Your task to perform on an android device: manage bookmarks in the chrome app Image 0: 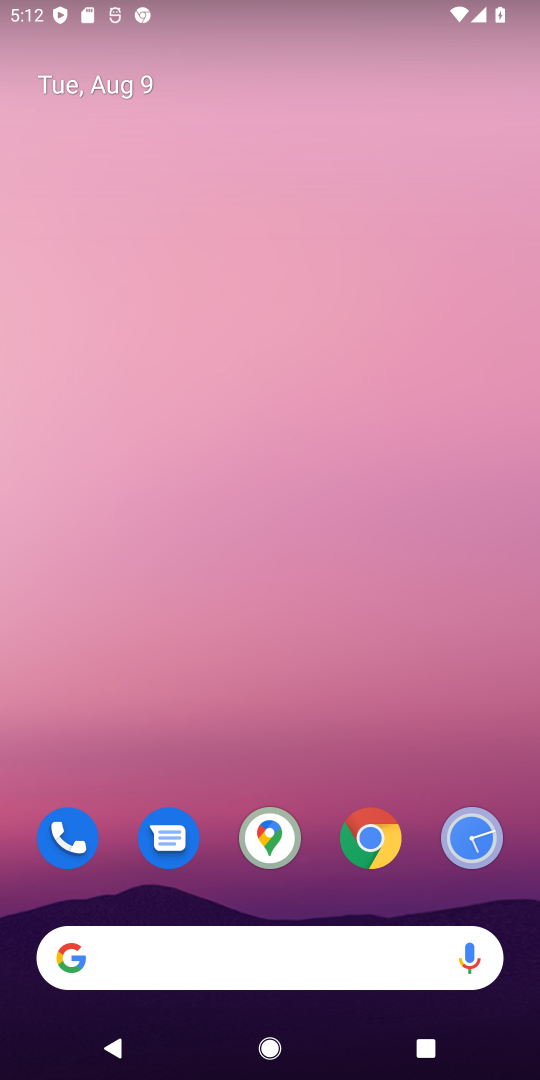
Step 0: click (354, 842)
Your task to perform on an android device: manage bookmarks in the chrome app Image 1: 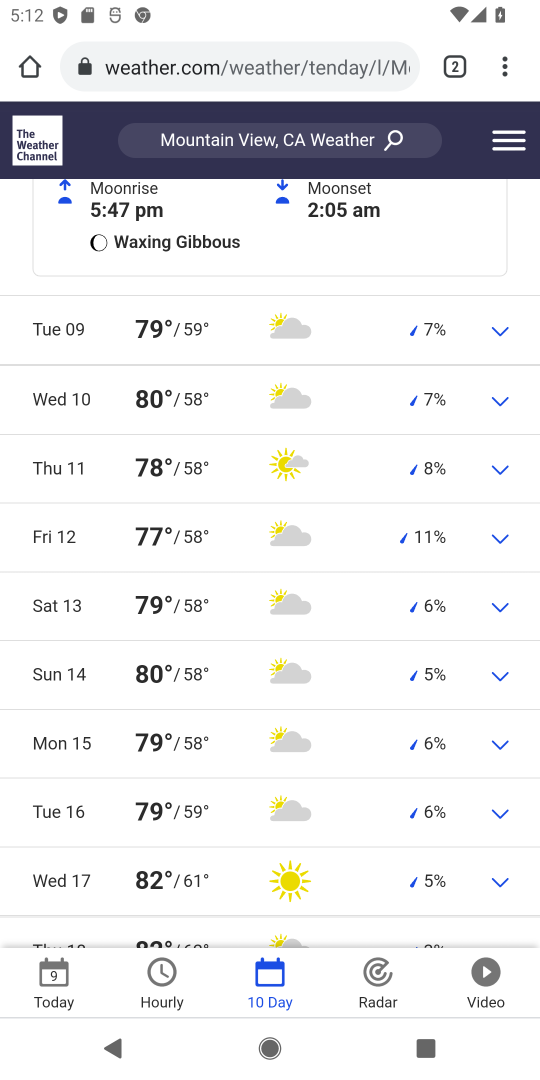
Step 1: click (503, 61)
Your task to perform on an android device: manage bookmarks in the chrome app Image 2: 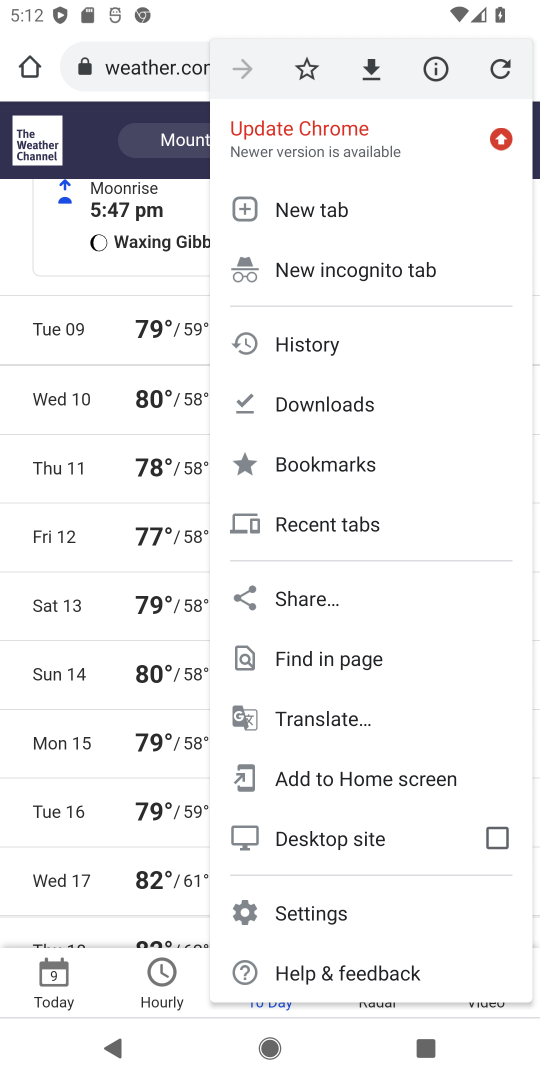
Step 2: click (368, 474)
Your task to perform on an android device: manage bookmarks in the chrome app Image 3: 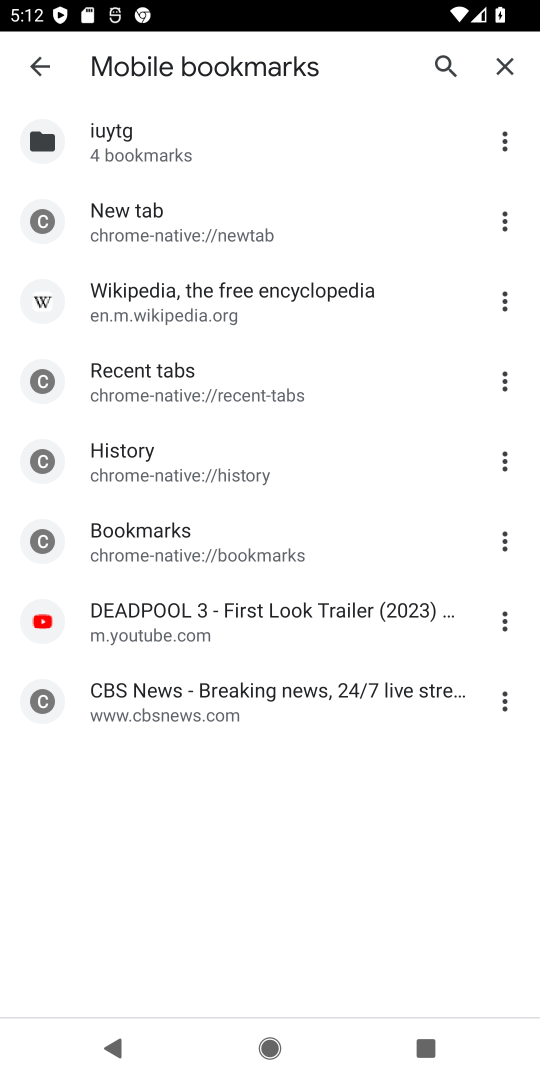
Step 3: click (265, 370)
Your task to perform on an android device: manage bookmarks in the chrome app Image 4: 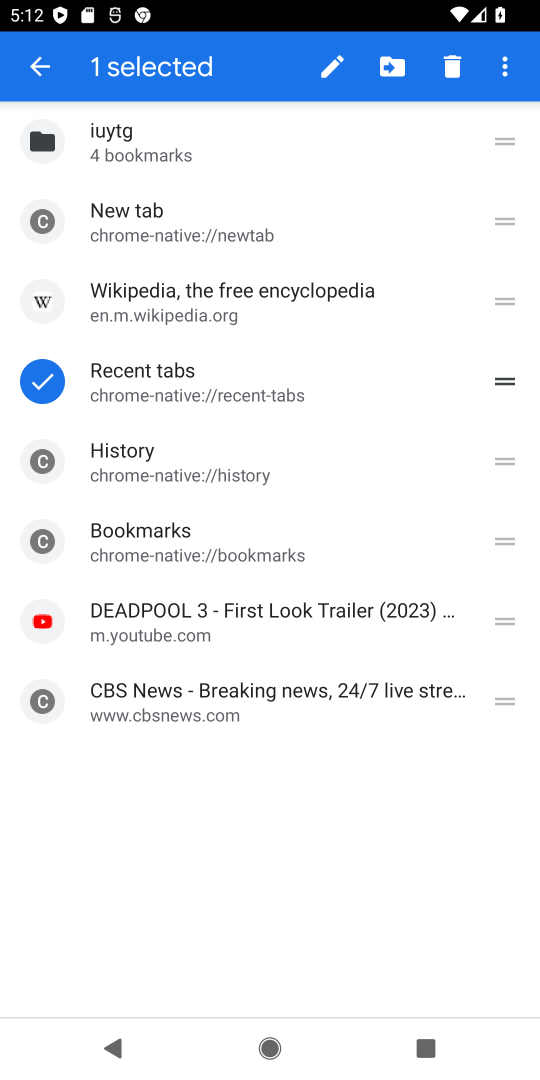
Step 4: click (389, 73)
Your task to perform on an android device: manage bookmarks in the chrome app Image 5: 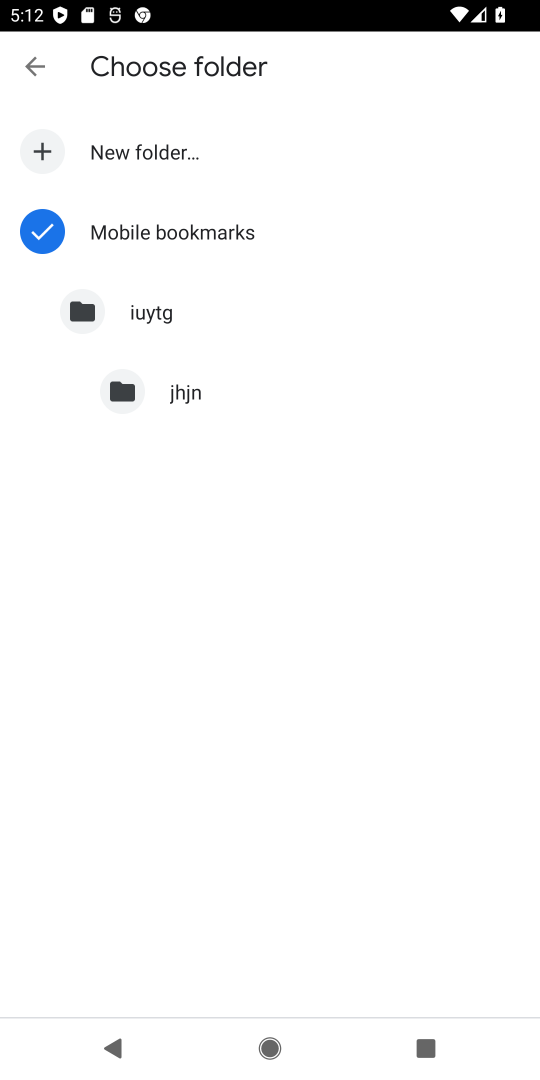
Step 5: click (190, 307)
Your task to perform on an android device: manage bookmarks in the chrome app Image 6: 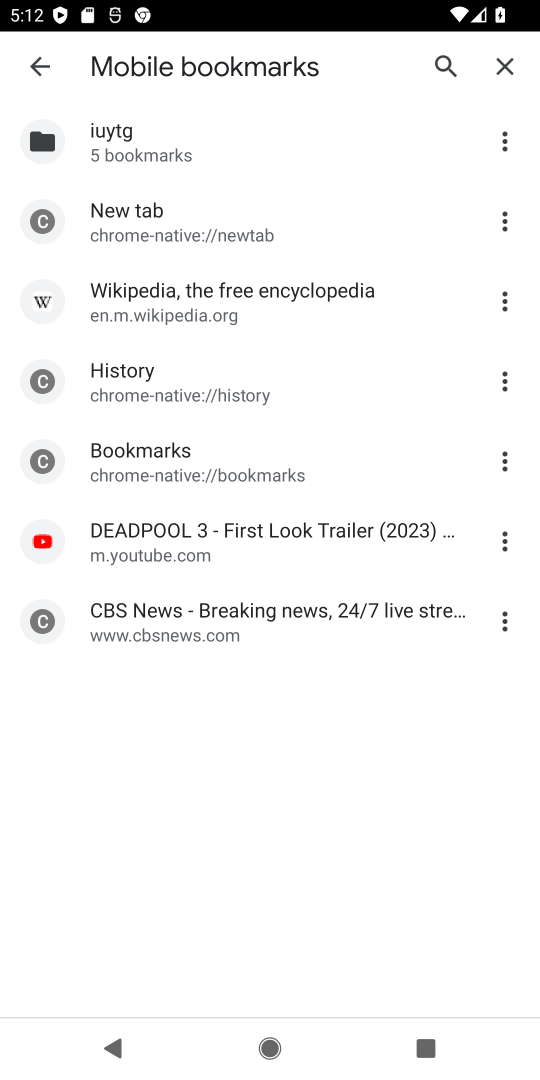
Step 6: task complete